Your task to perform on an android device: Open Chrome and go to the settings page Image 0: 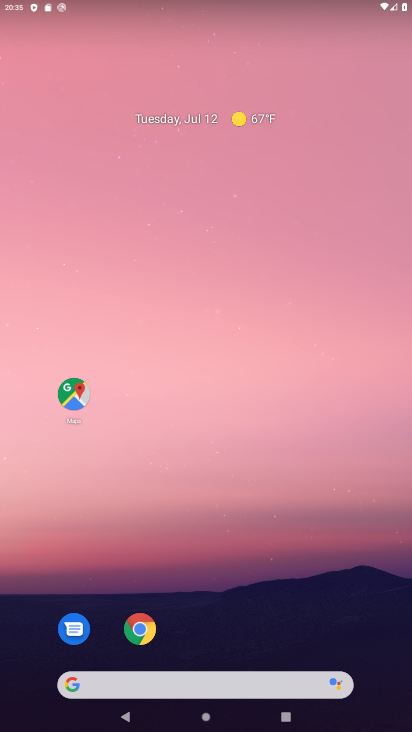
Step 0: click (156, 109)
Your task to perform on an android device: Open Chrome and go to the settings page Image 1: 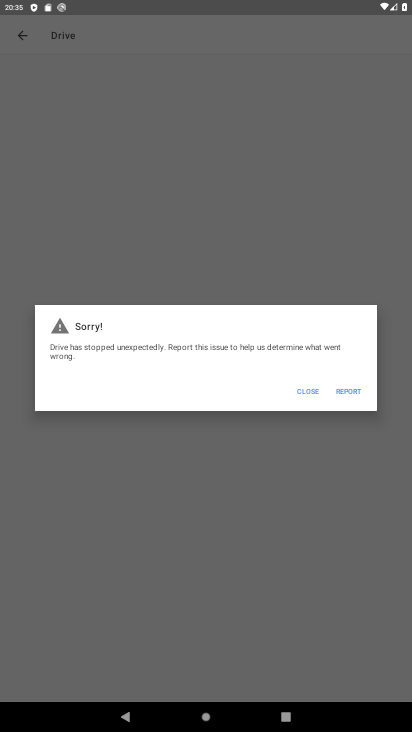
Step 1: press home button
Your task to perform on an android device: Open Chrome and go to the settings page Image 2: 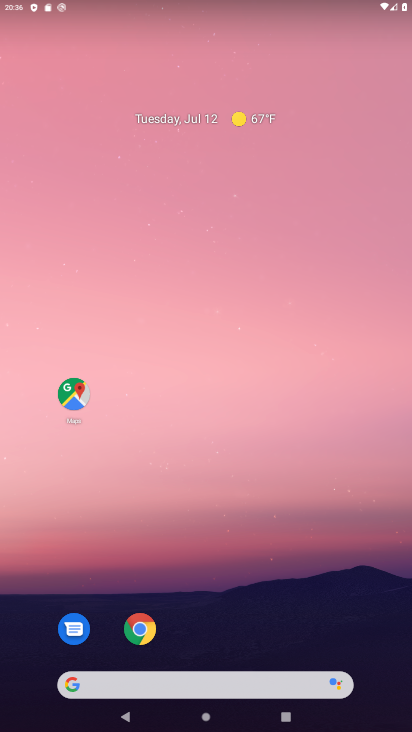
Step 2: click (138, 618)
Your task to perform on an android device: Open Chrome and go to the settings page Image 3: 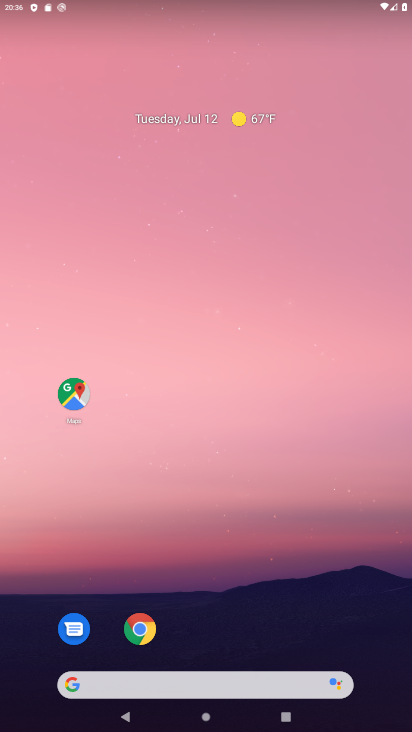
Step 3: click (138, 618)
Your task to perform on an android device: Open Chrome and go to the settings page Image 4: 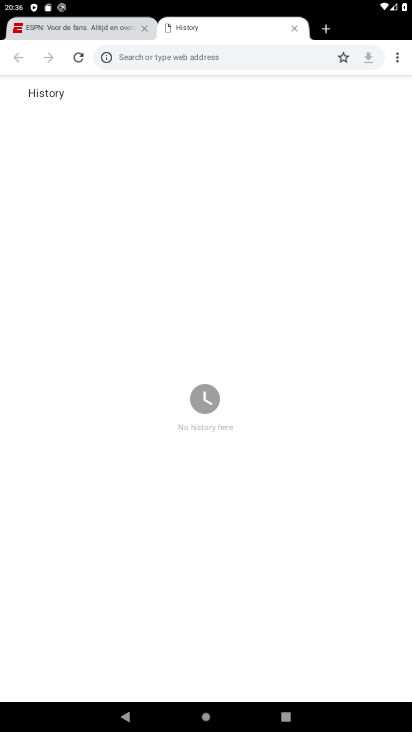
Step 4: click (393, 53)
Your task to perform on an android device: Open Chrome and go to the settings page Image 5: 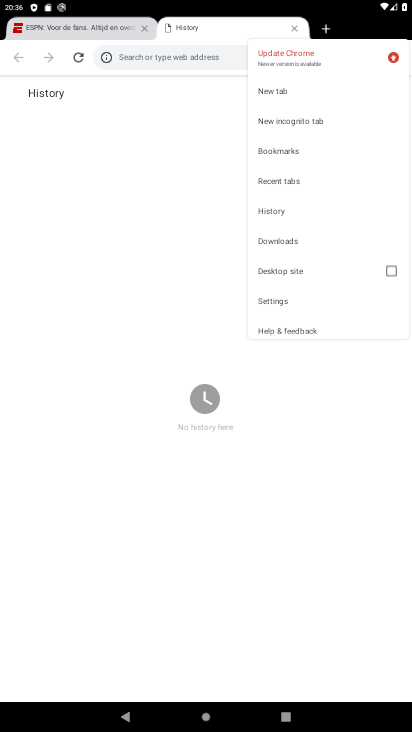
Step 5: click (280, 303)
Your task to perform on an android device: Open Chrome and go to the settings page Image 6: 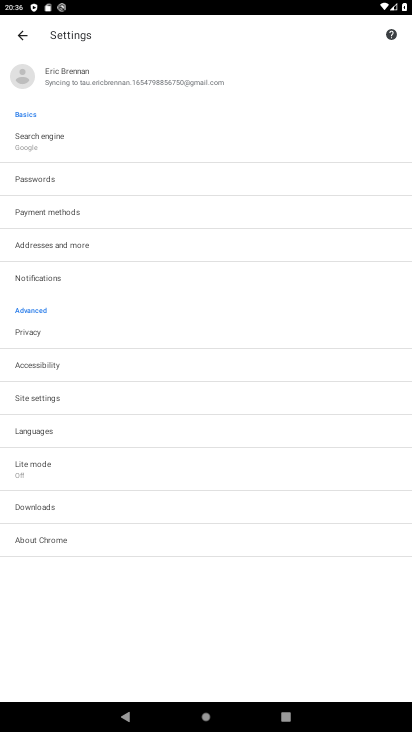
Step 6: task complete